Your task to perform on an android device: turn off location Image 0: 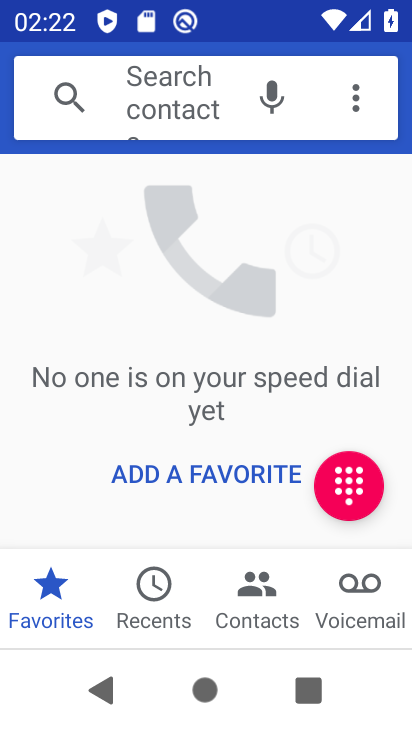
Step 0: press home button
Your task to perform on an android device: turn off location Image 1: 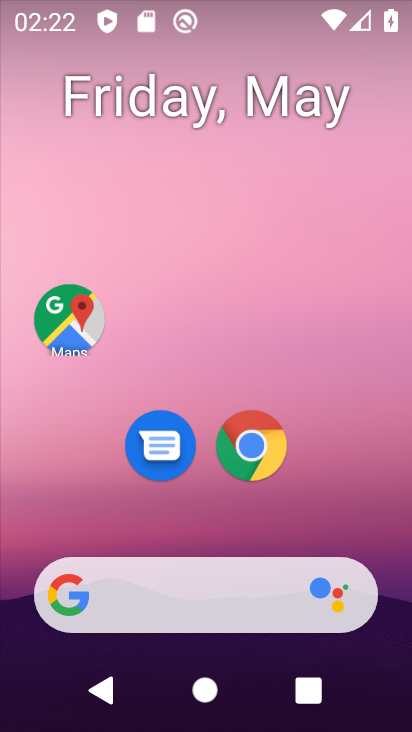
Step 1: drag from (45, 547) to (223, 80)
Your task to perform on an android device: turn off location Image 2: 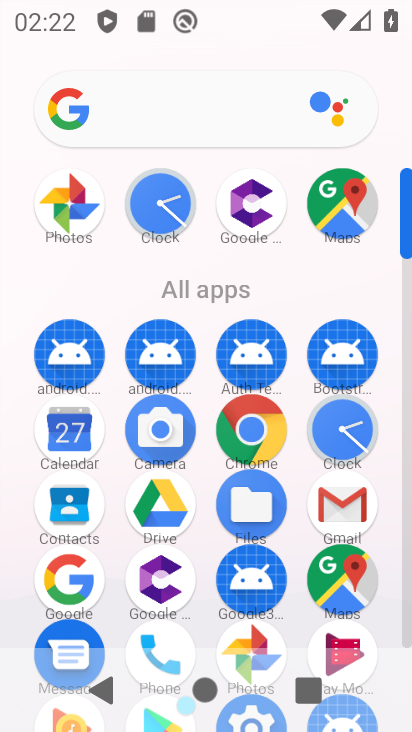
Step 2: drag from (184, 534) to (256, 304)
Your task to perform on an android device: turn off location Image 3: 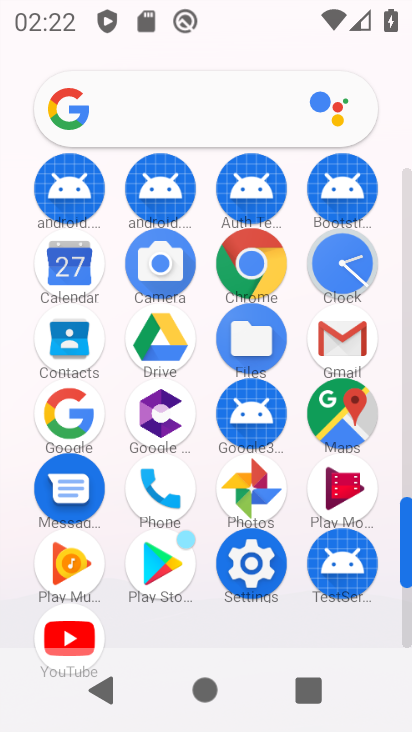
Step 3: click (262, 558)
Your task to perform on an android device: turn off location Image 4: 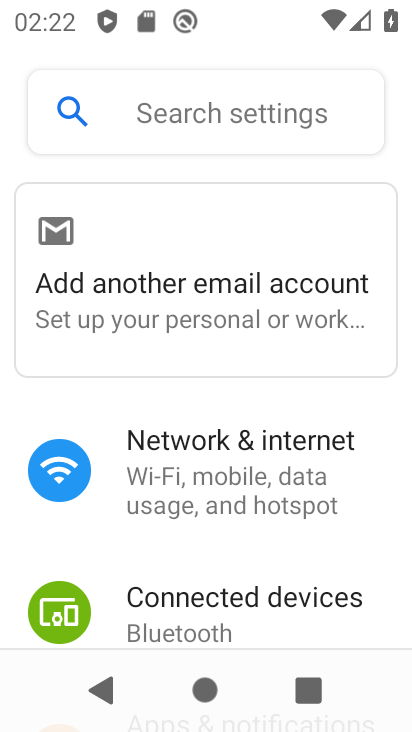
Step 4: drag from (209, 598) to (318, 81)
Your task to perform on an android device: turn off location Image 5: 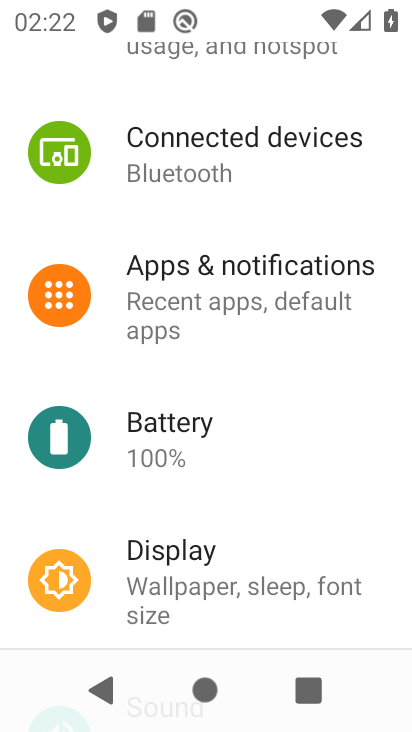
Step 5: drag from (204, 538) to (284, 193)
Your task to perform on an android device: turn off location Image 6: 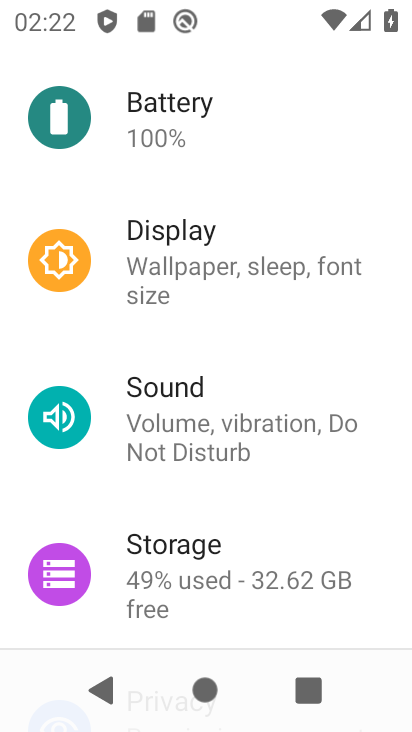
Step 6: drag from (208, 496) to (294, 138)
Your task to perform on an android device: turn off location Image 7: 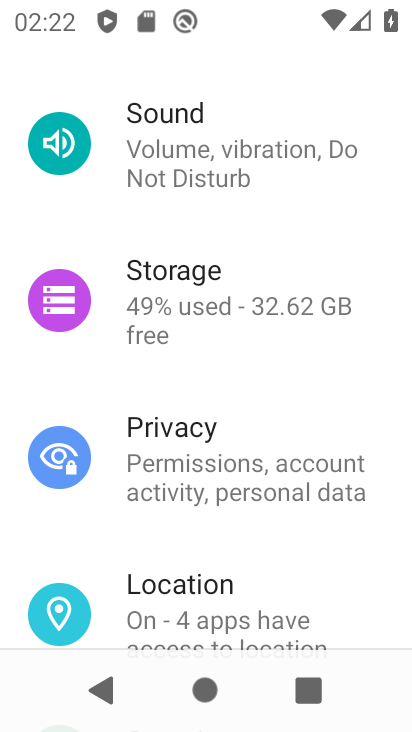
Step 7: drag from (231, 493) to (279, 275)
Your task to perform on an android device: turn off location Image 8: 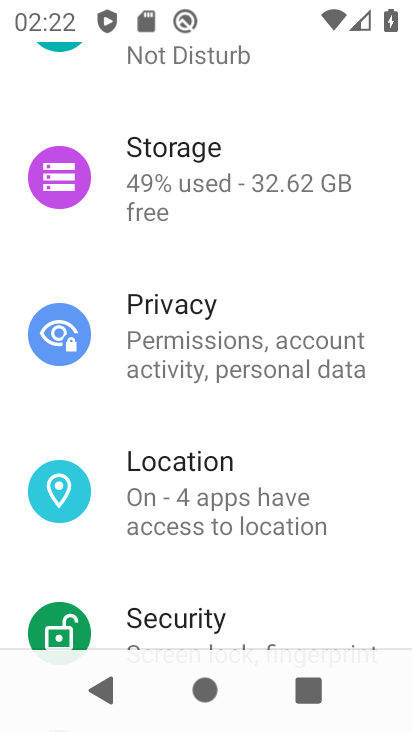
Step 8: click (198, 451)
Your task to perform on an android device: turn off location Image 9: 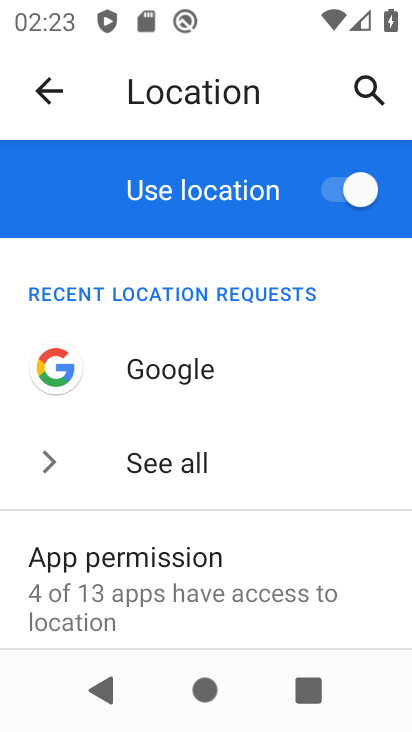
Step 9: click (321, 186)
Your task to perform on an android device: turn off location Image 10: 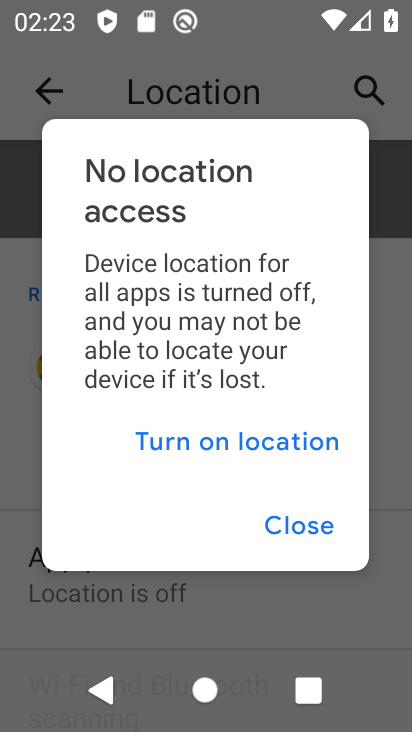
Step 10: click (301, 519)
Your task to perform on an android device: turn off location Image 11: 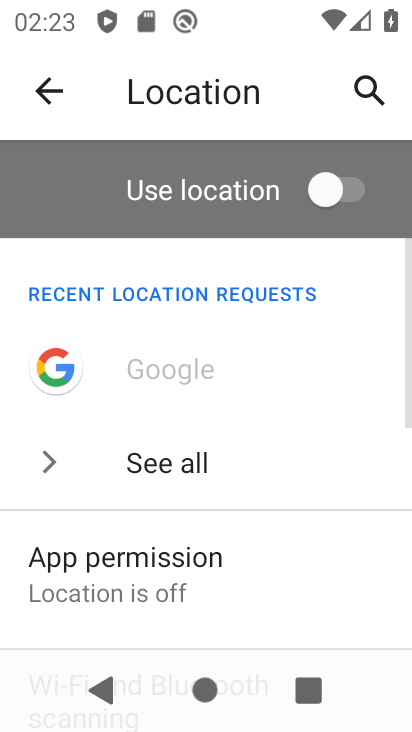
Step 11: task complete